Your task to perform on an android device: Add alienware area 51 to the cart on ebay.com Image 0: 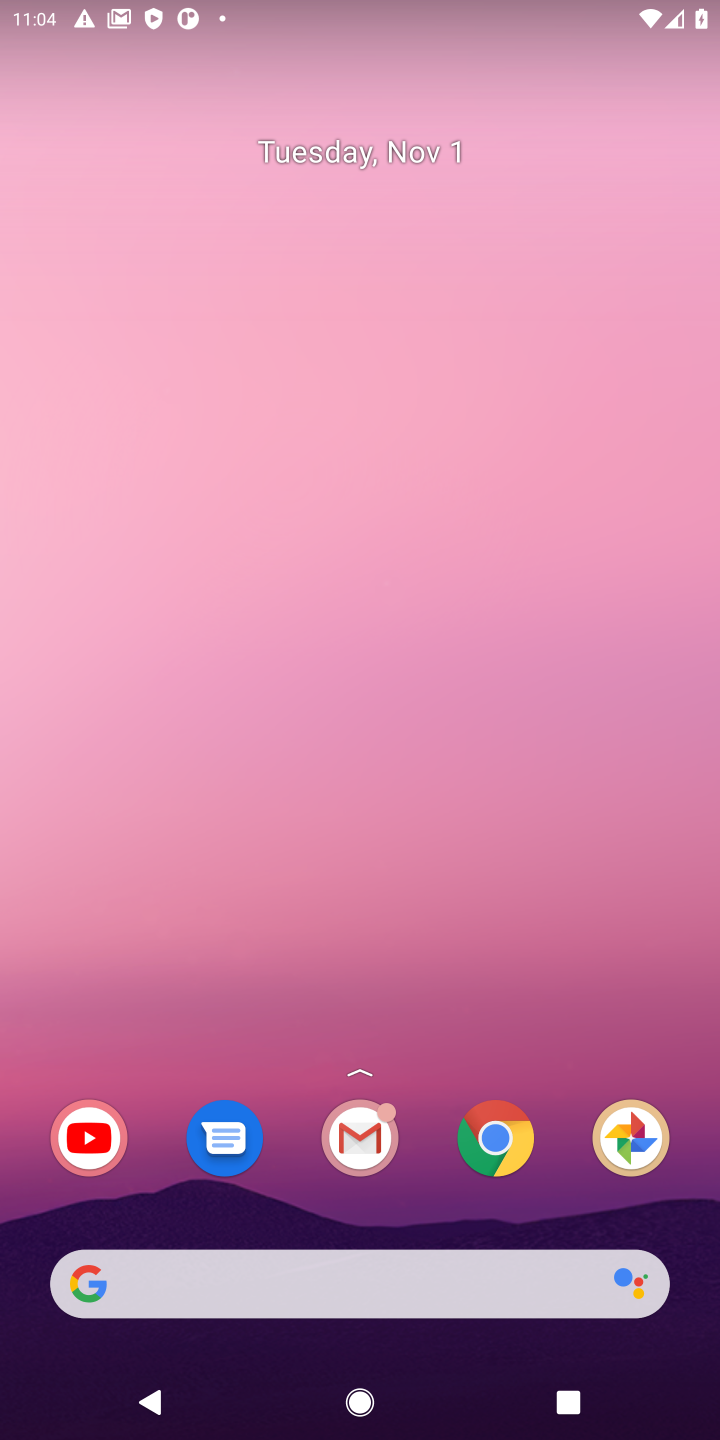
Step 0: click (482, 1139)
Your task to perform on an android device: Add alienware area 51 to the cart on ebay.com Image 1: 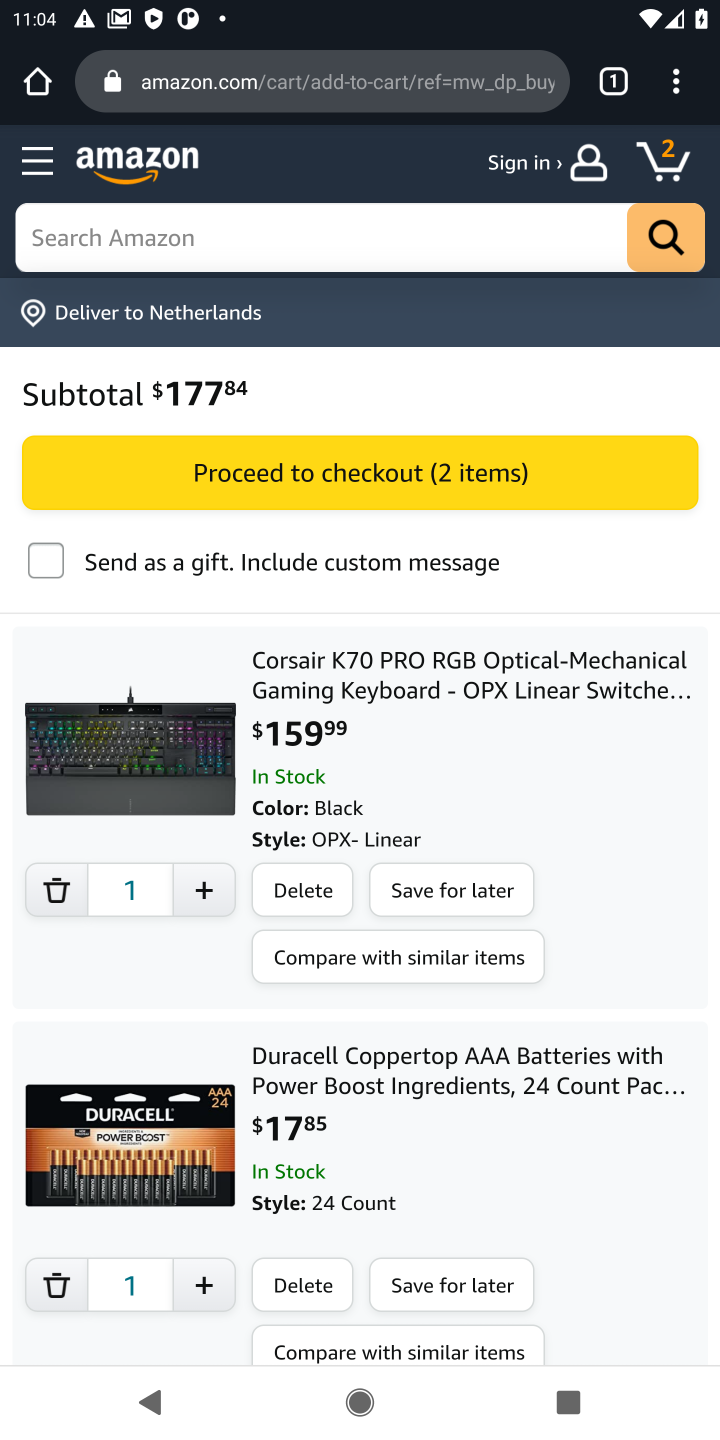
Step 1: click (272, 76)
Your task to perform on an android device: Add alienware area 51 to the cart on ebay.com Image 2: 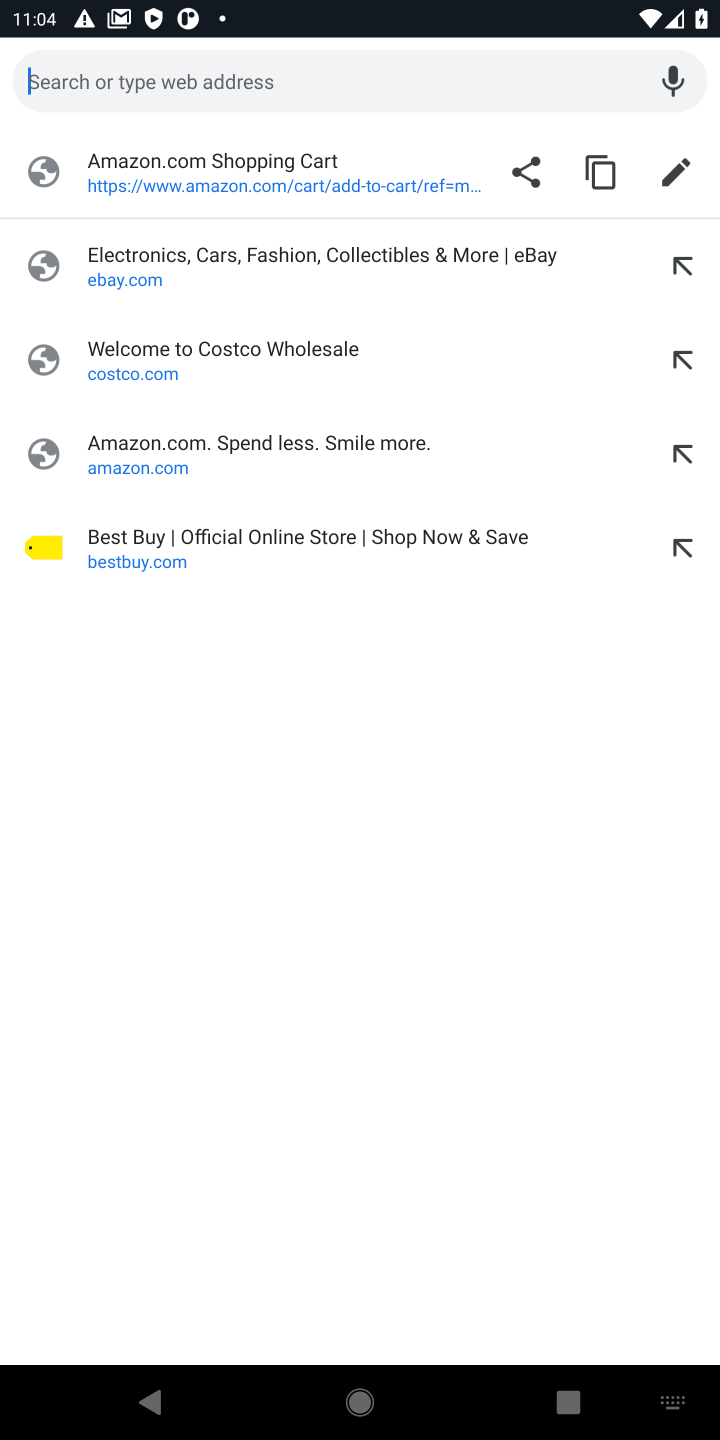
Step 2: click (119, 283)
Your task to perform on an android device: Add alienware area 51 to the cart on ebay.com Image 3: 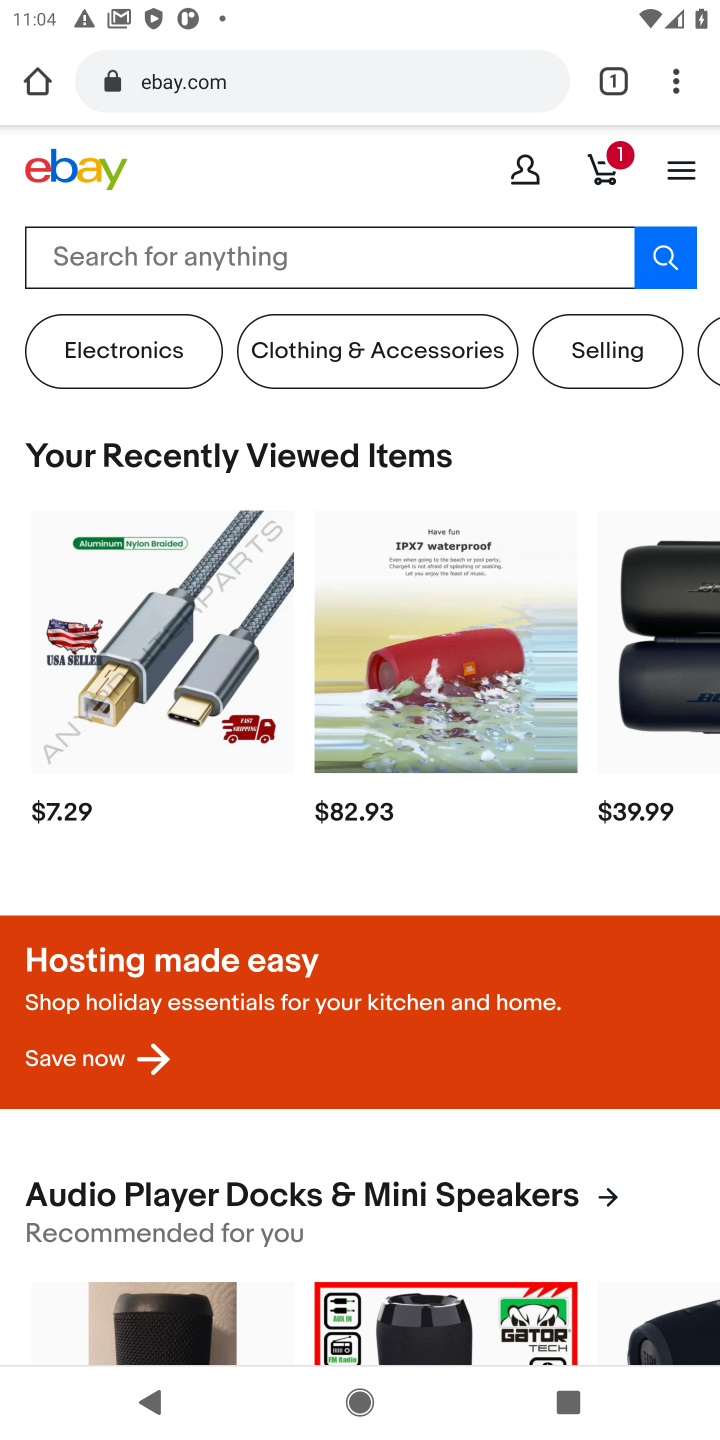
Step 3: click (119, 250)
Your task to perform on an android device: Add alienware area 51 to the cart on ebay.com Image 4: 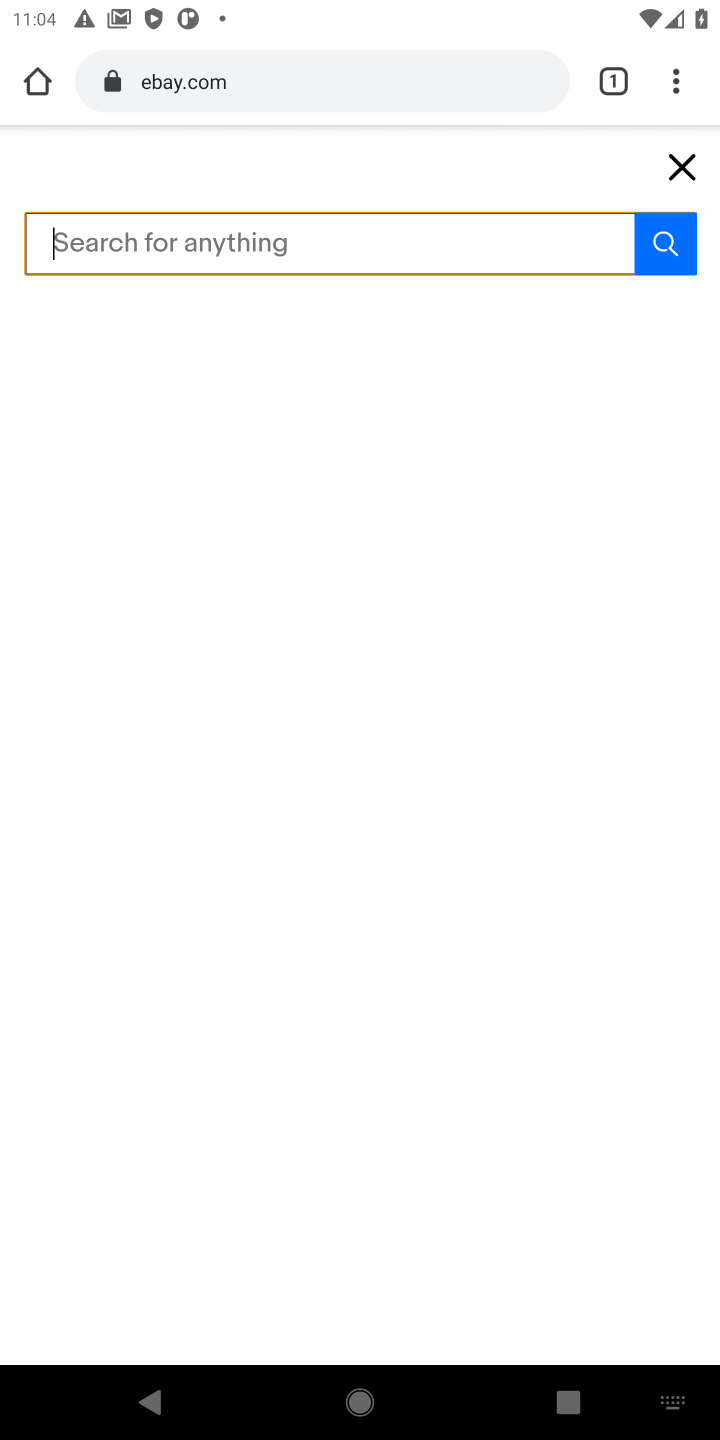
Step 4: type "alienware area 51 "
Your task to perform on an android device: Add alienware area 51 to the cart on ebay.com Image 5: 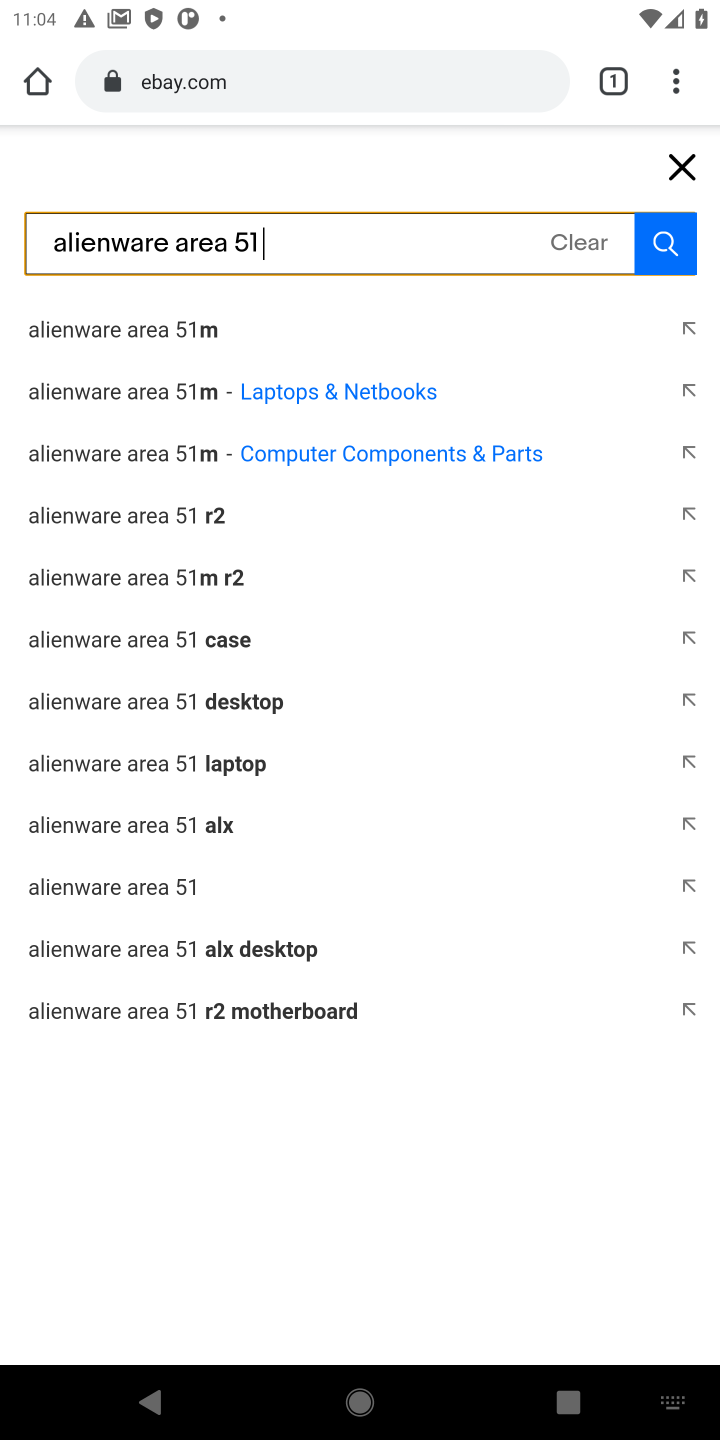
Step 5: click (68, 878)
Your task to perform on an android device: Add alienware area 51 to the cart on ebay.com Image 6: 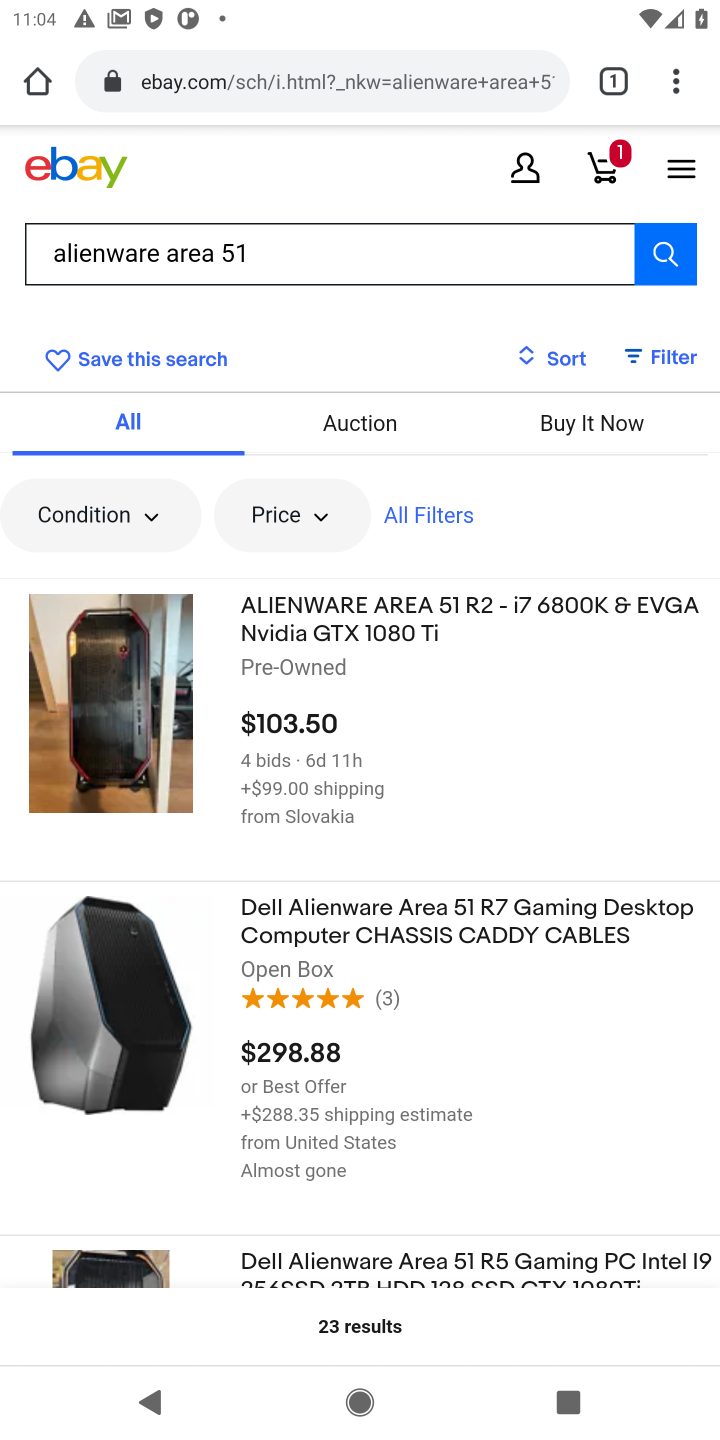
Step 6: click (250, 722)
Your task to perform on an android device: Add alienware area 51 to the cart on ebay.com Image 7: 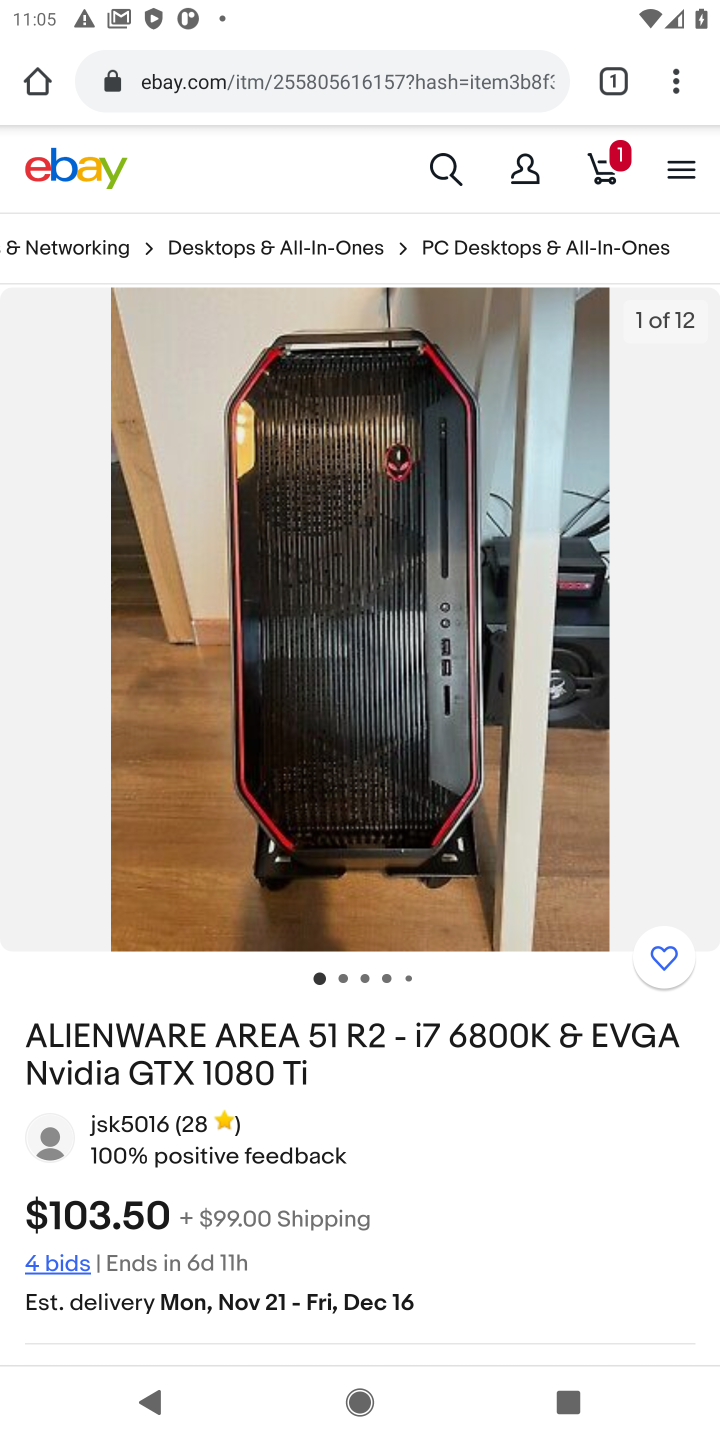
Step 7: drag from (341, 1180) to (363, 424)
Your task to perform on an android device: Add alienware area 51 to the cart on ebay.com Image 8: 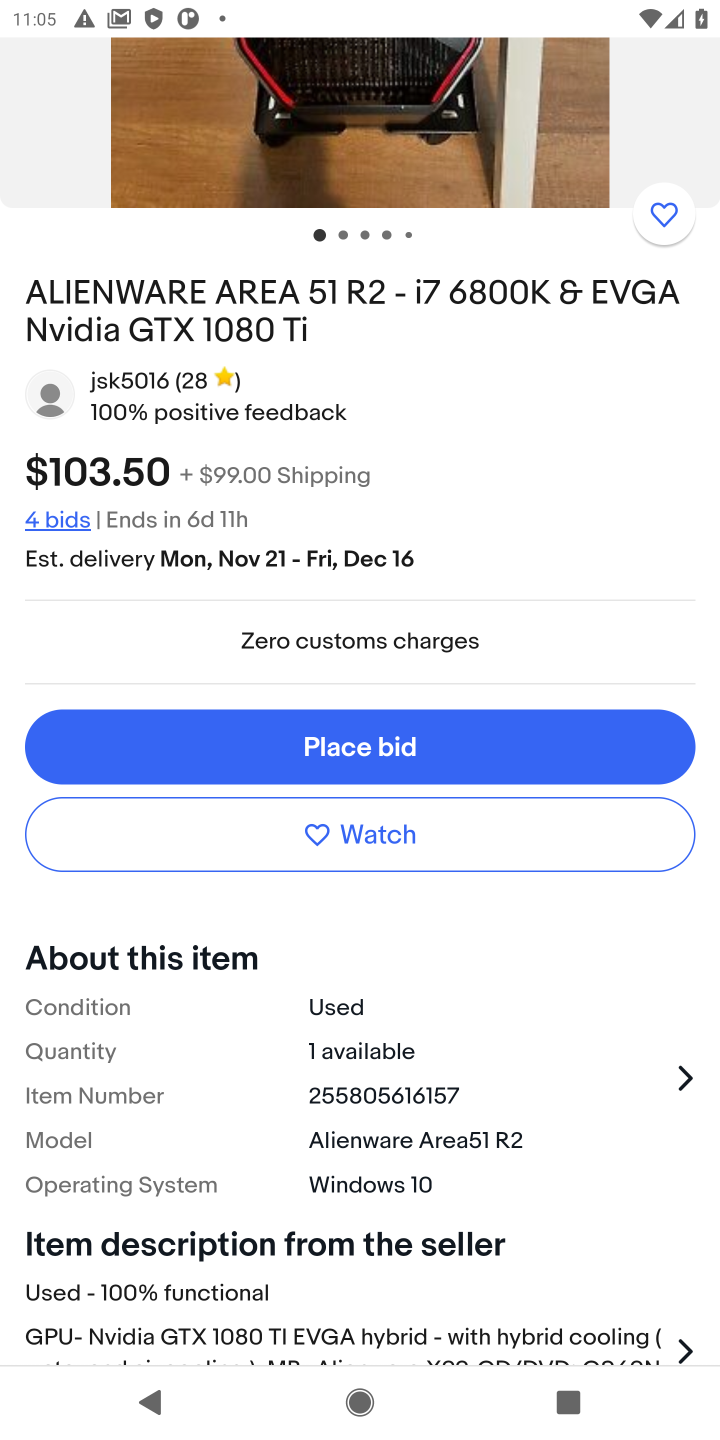
Step 8: press back button
Your task to perform on an android device: Add alienware area 51 to the cart on ebay.com Image 9: 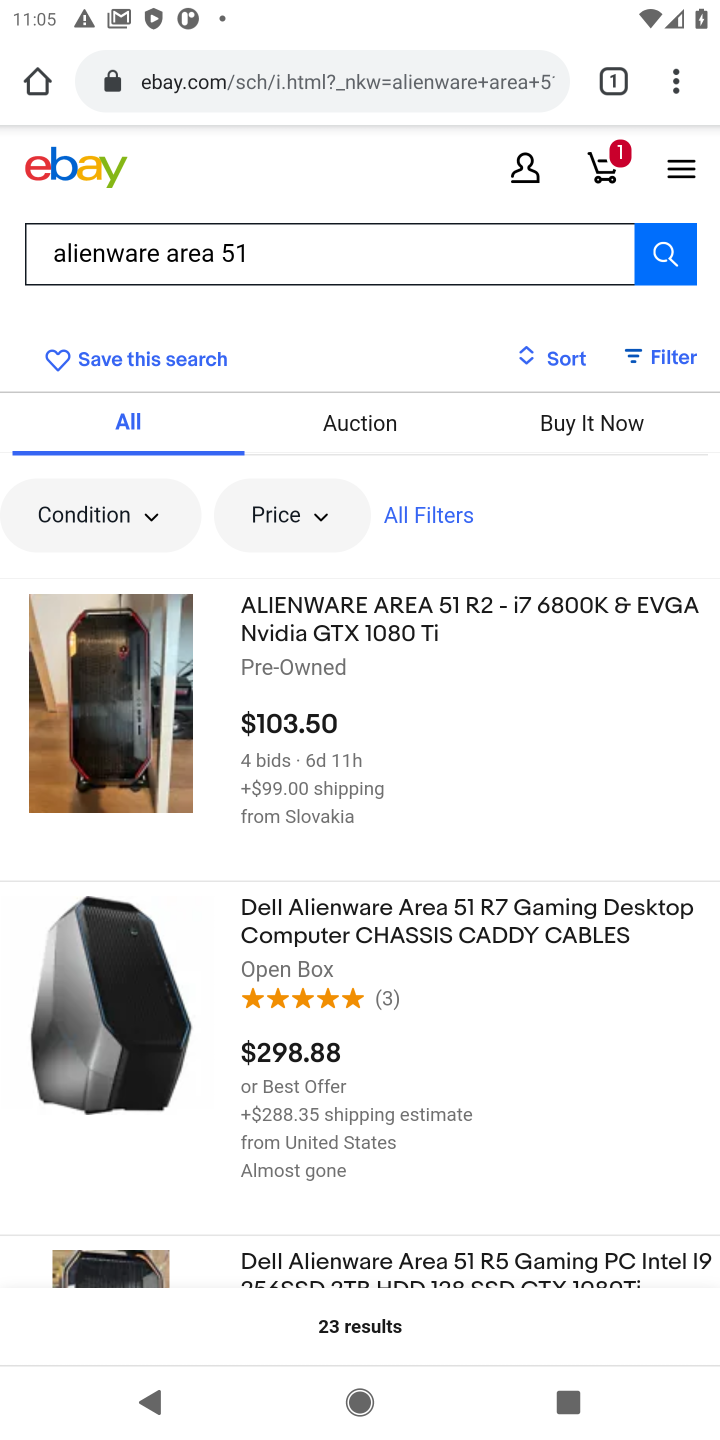
Step 9: click (255, 1070)
Your task to perform on an android device: Add alienware area 51 to the cart on ebay.com Image 10: 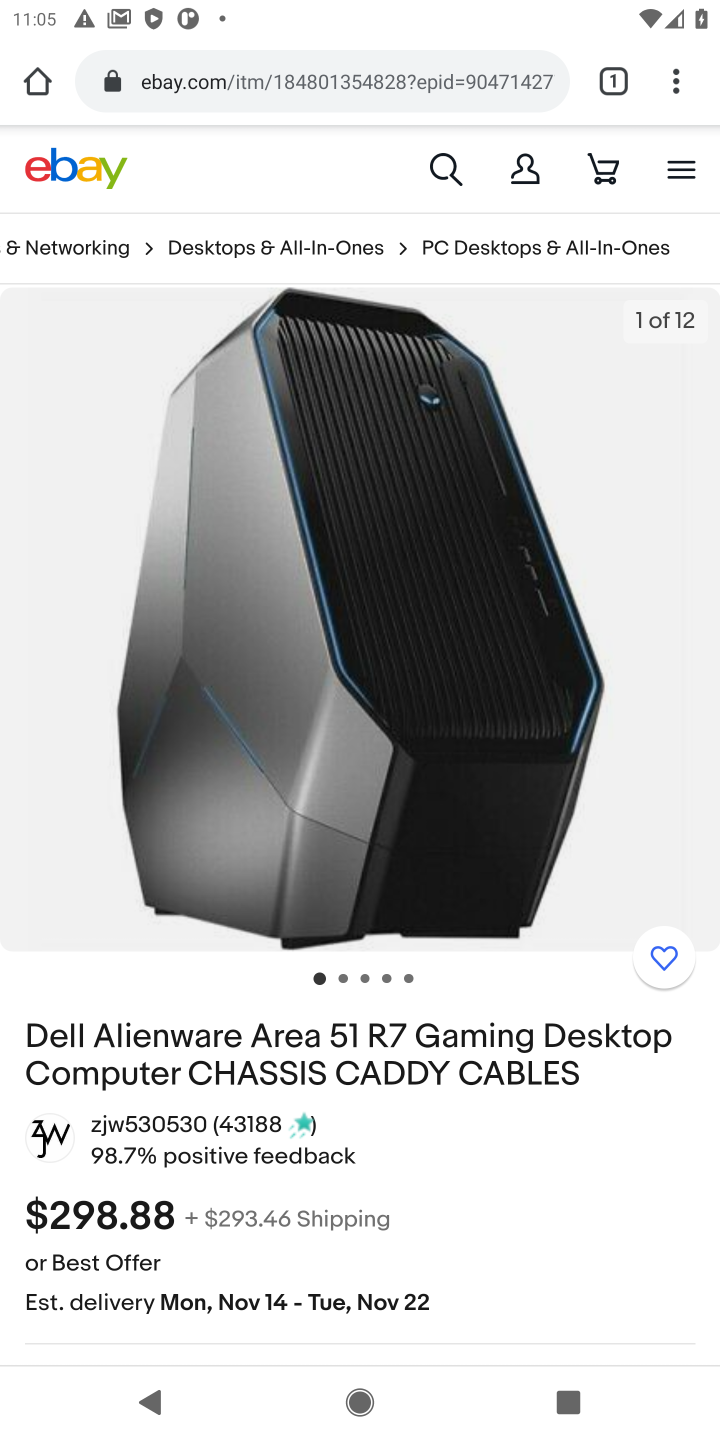
Step 10: drag from (350, 1076) to (359, 395)
Your task to perform on an android device: Add alienware area 51 to the cart on ebay.com Image 11: 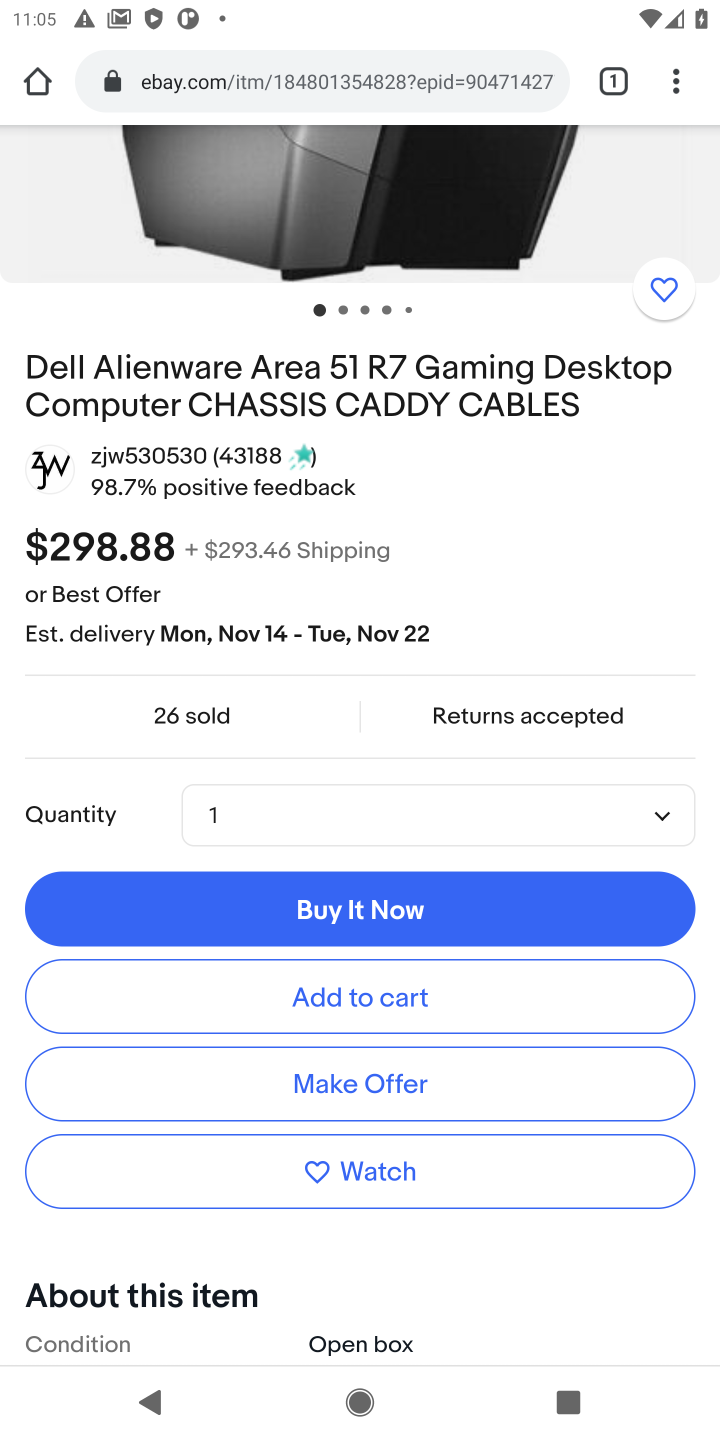
Step 11: click (319, 995)
Your task to perform on an android device: Add alienware area 51 to the cart on ebay.com Image 12: 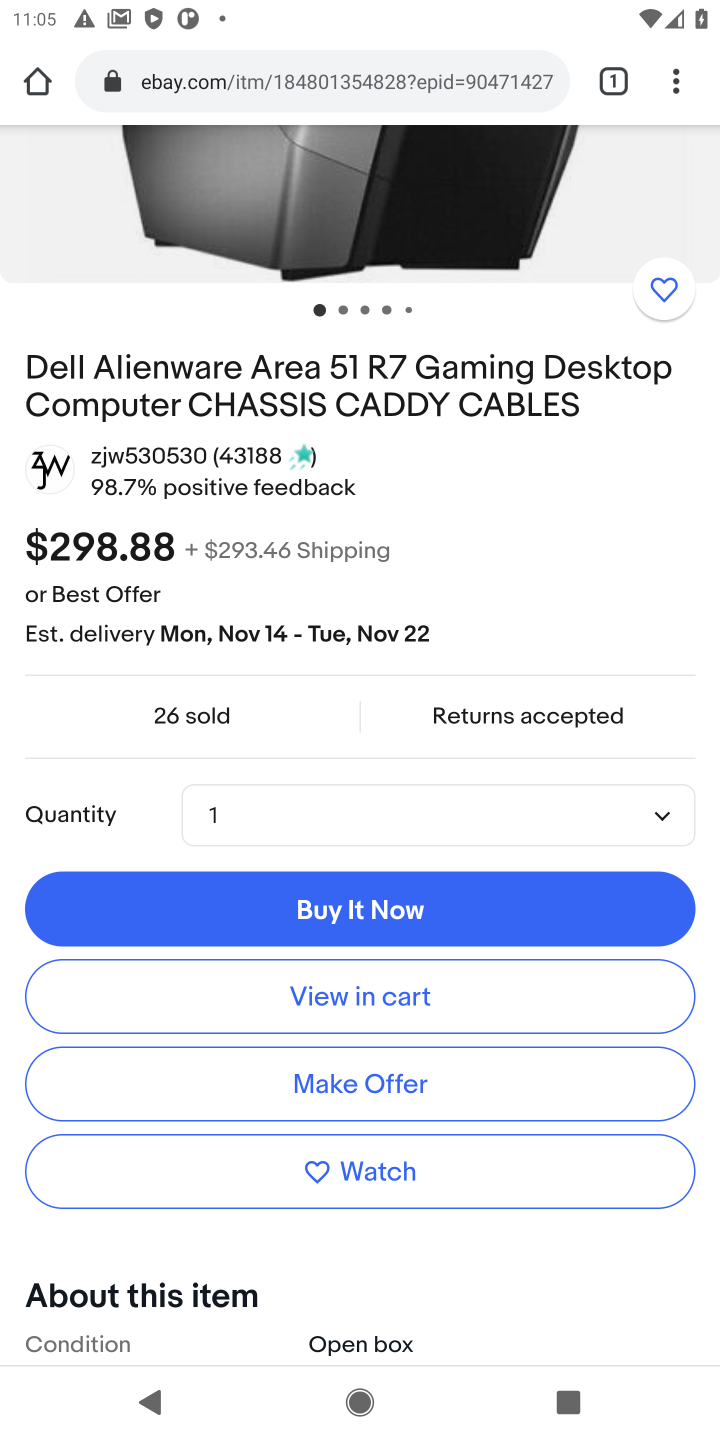
Step 12: task complete